Your task to perform on an android device: Open Google Chrome Image 0: 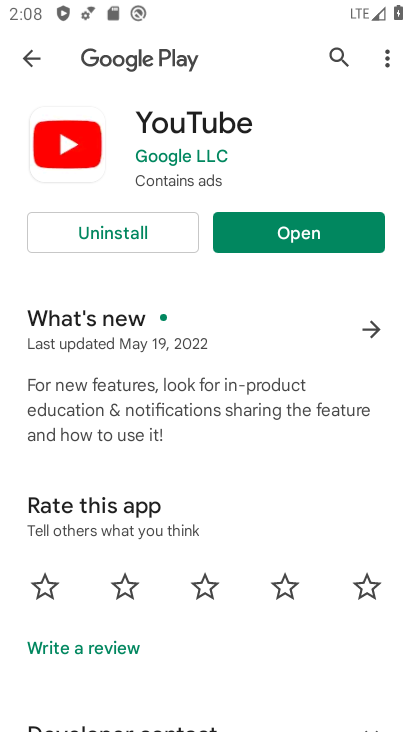
Step 0: press home button
Your task to perform on an android device: Open Google Chrome Image 1: 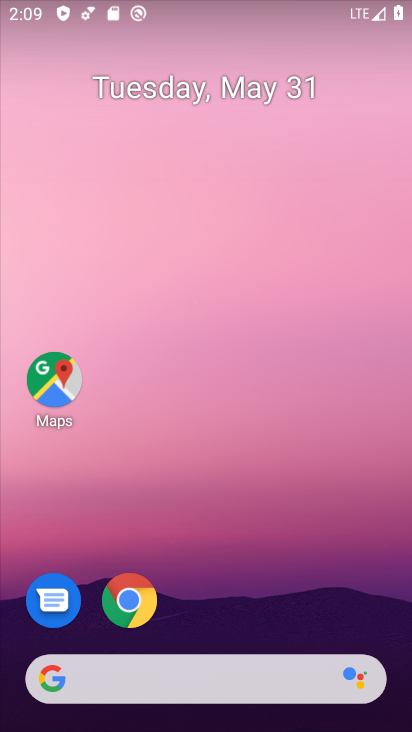
Step 1: click (133, 599)
Your task to perform on an android device: Open Google Chrome Image 2: 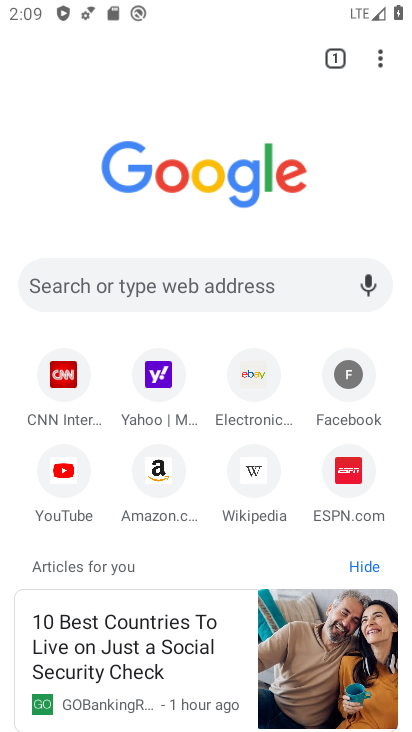
Step 2: task complete